Your task to perform on an android device: check data usage Image 0: 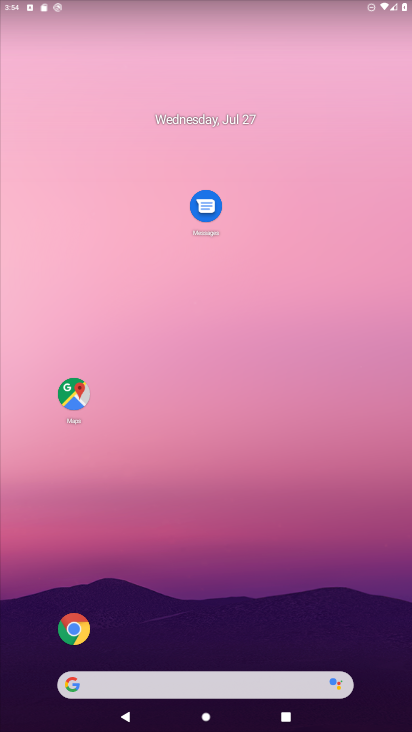
Step 0: drag from (223, 3) to (134, 393)
Your task to perform on an android device: check data usage Image 1: 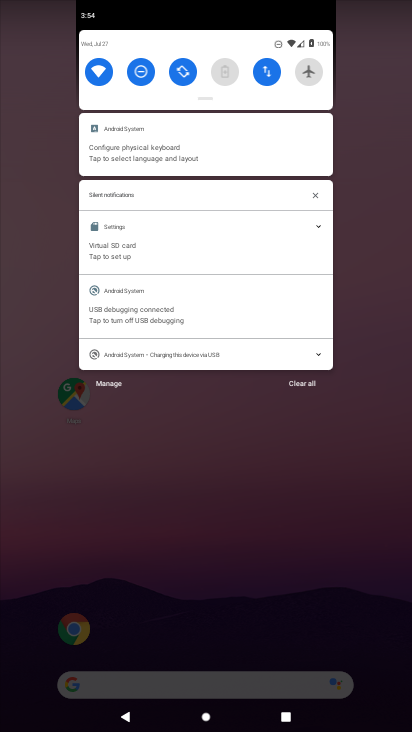
Step 1: click (264, 78)
Your task to perform on an android device: check data usage Image 2: 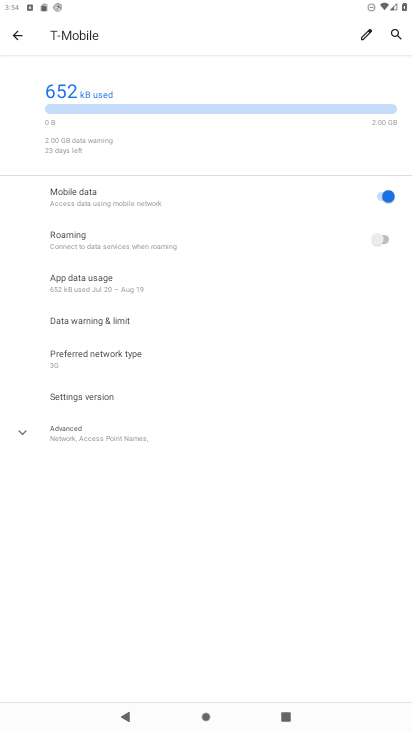
Step 2: task complete